Your task to perform on an android device: turn pop-ups on in chrome Image 0: 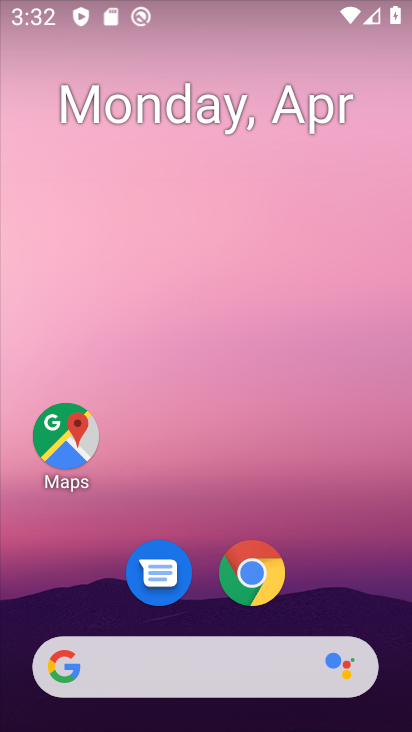
Step 0: drag from (347, 589) to (361, 99)
Your task to perform on an android device: turn pop-ups on in chrome Image 1: 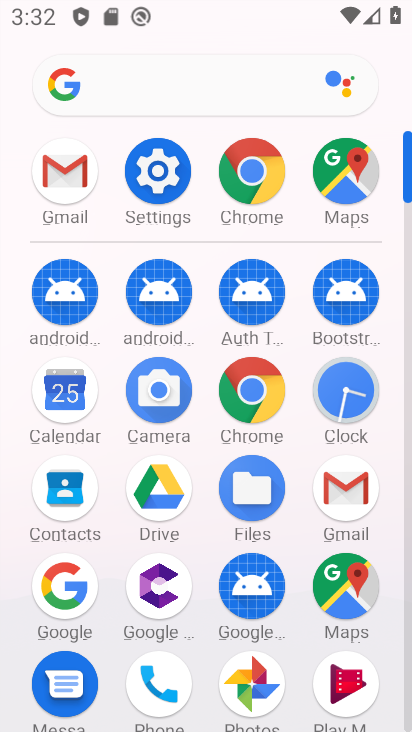
Step 1: click (266, 393)
Your task to perform on an android device: turn pop-ups on in chrome Image 2: 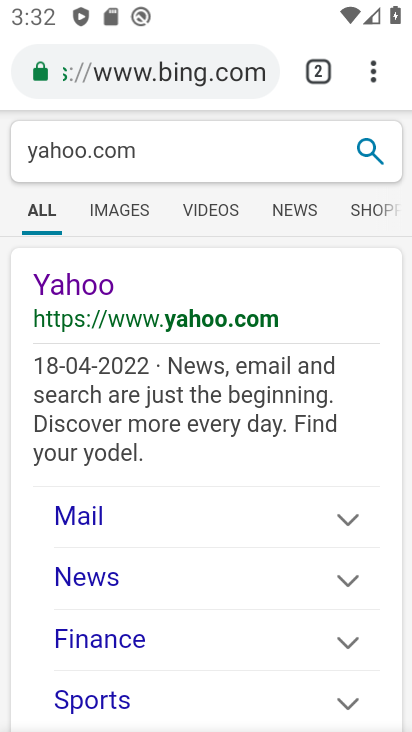
Step 2: click (373, 76)
Your task to perform on an android device: turn pop-ups on in chrome Image 3: 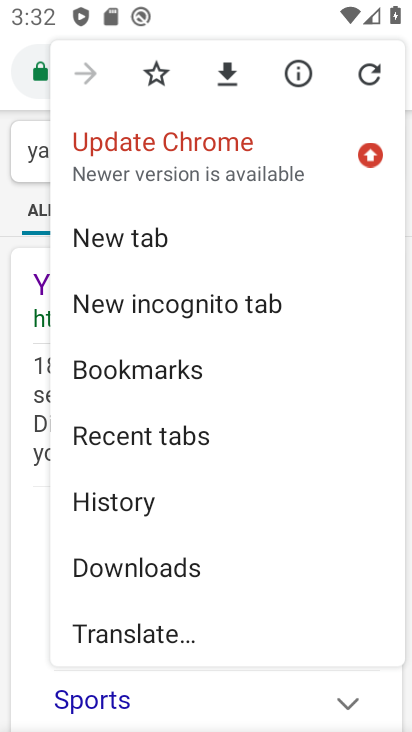
Step 3: drag from (341, 541) to (345, 412)
Your task to perform on an android device: turn pop-ups on in chrome Image 4: 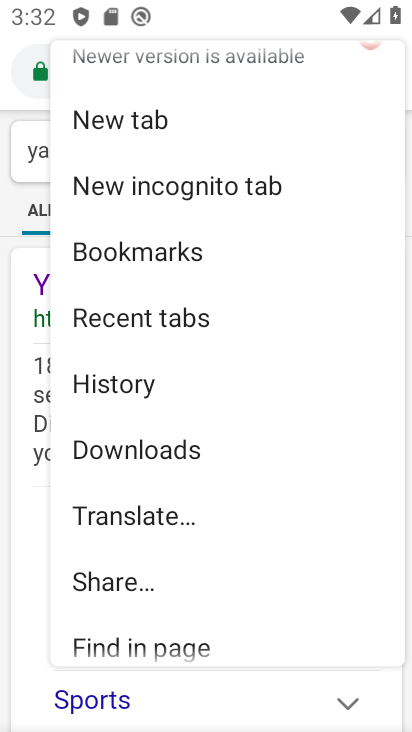
Step 4: drag from (312, 542) to (304, 428)
Your task to perform on an android device: turn pop-ups on in chrome Image 5: 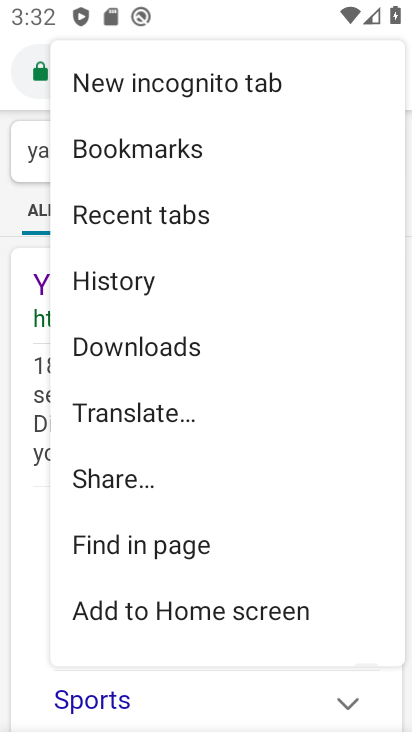
Step 5: drag from (343, 546) to (336, 355)
Your task to perform on an android device: turn pop-ups on in chrome Image 6: 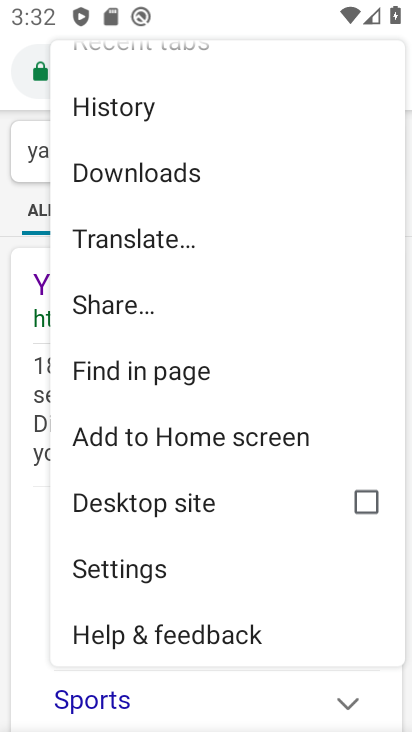
Step 6: click (150, 573)
Your task to perform on an android device: turn pop-ups on in chrome Image 7: 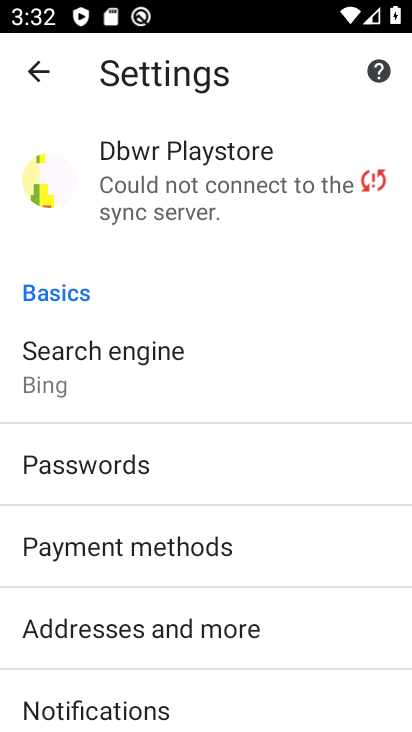
Step 7: drag from (343, 579) to (344, 475)
Your task to perform on an android device: turn pop-ups on in chrome Image 8: 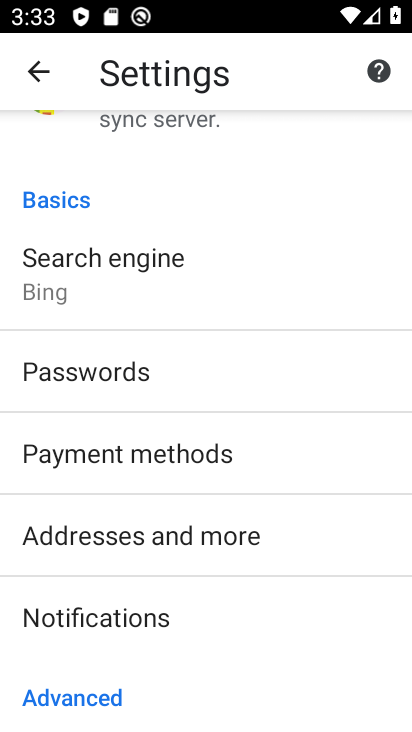
Step 8: drag from (318, 637) to (305, 487)
Your task to perform on an android device: turn pop-ups on in chrome Image 9: 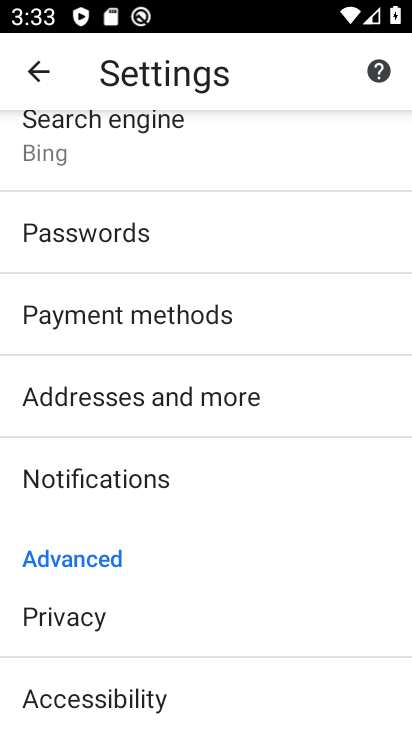
Step 9: drag from (311, 651) to (309, 488)
Your task to perform on an android device: turn pop-ups on in chrome Image 10: 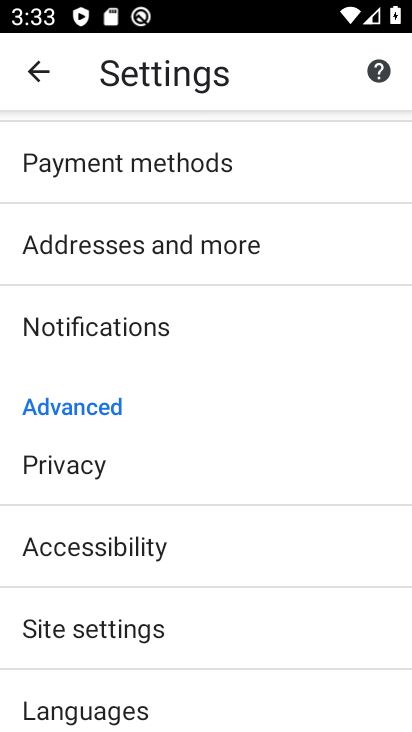
Step 10: drag from (313, 642) to (320, 494)
Your task to perform on an android device: turn pop-ups on in chrome Image 11: 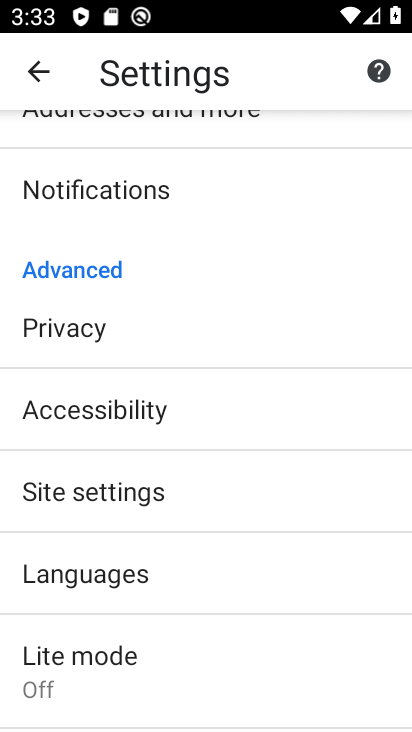
Step 11: drag from (310, 643) to (331, 463)
Your task to perform on an android device: turn pop-ups on in chrome Image 12: 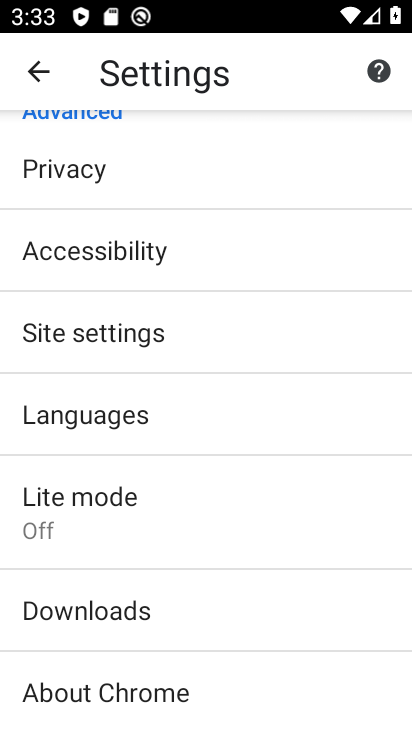
Step 12: drag from (286, 628) to (298, 472)
Your task to perform on an android device: turn pop-ups on in chrome Image 13: 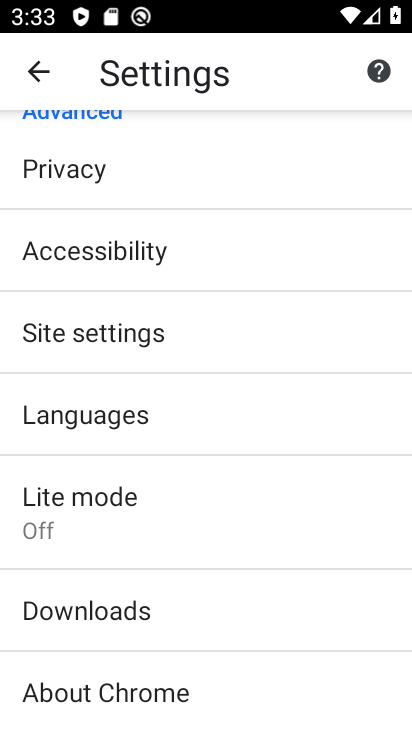
Step 13: drag from (305, 384) to (270, 538)
Your task to perform on an android device: turn pop-ups on in chrome Image 14: 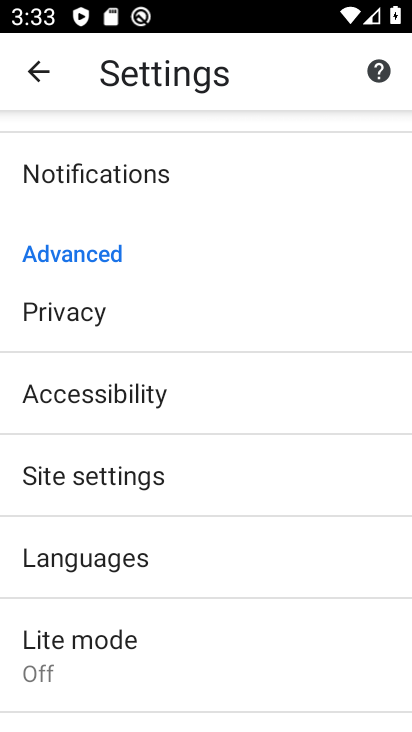
Step 14: drag from (286, 426) to (273, 548)
Your task to perform on an android device: turn pop-ups on in chrome Image 15: 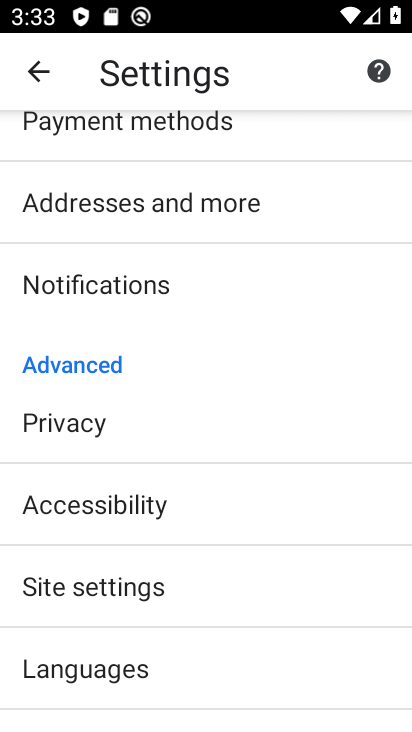
Step 15: drag from (282, 427) to (283, 545)
Your task to perform on an android device: turn pop-ups on in chrome Image 16: 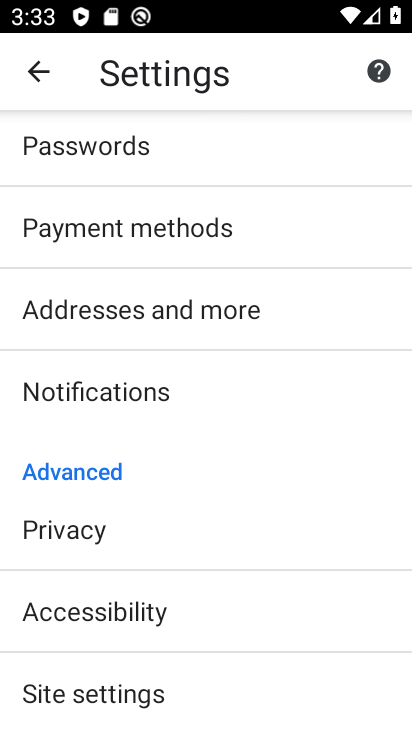
Step 16: click (242, 674)
Your task to perform on an android device: turn pop-ups on in chrome Image 17: 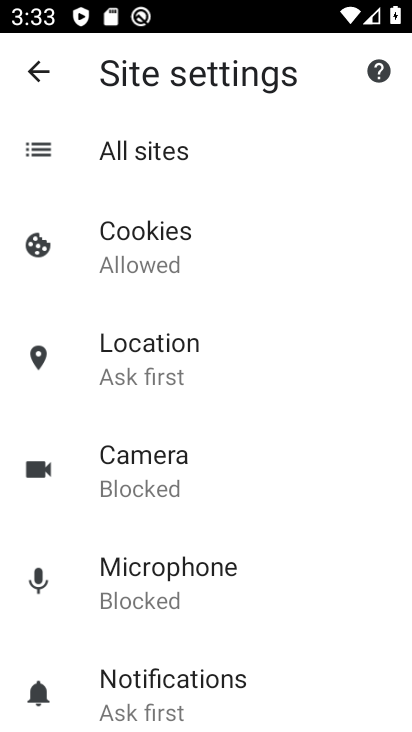
Step 17: drag from (353, 646) to (348, 484)
Your task to perform on an android device: turn pop-ups on in chrome Image 18: 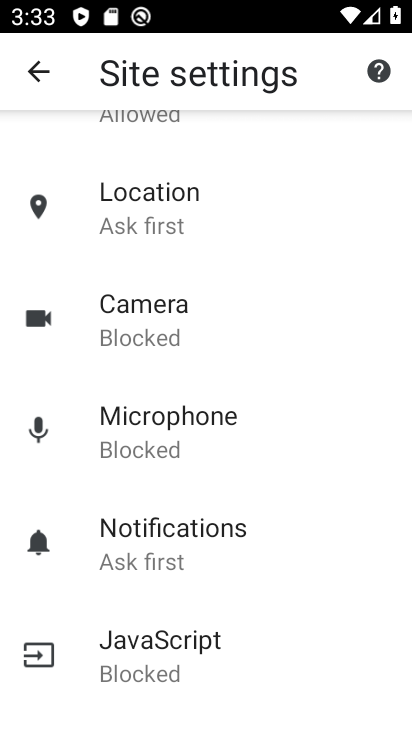
Step 18: drag from (343, 612) to (348, 467)
Your task to perform on an android device: turn pop-ups on in chrome Image 19: 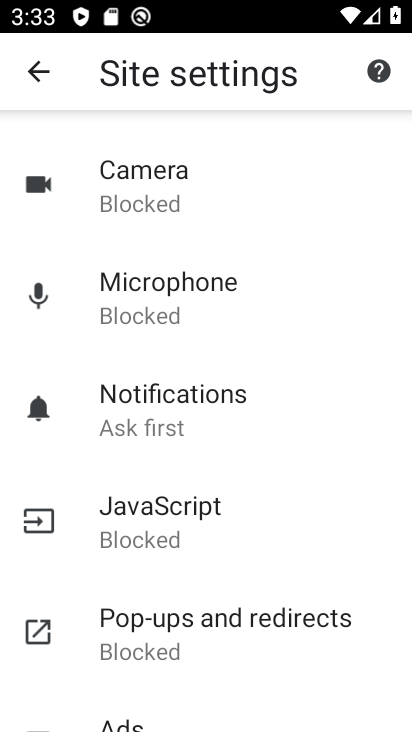
Step 19: drag from (362, 666) to (352, 454)
Your task to perform on an android device: turn pop-ups on in chrome Image 20: 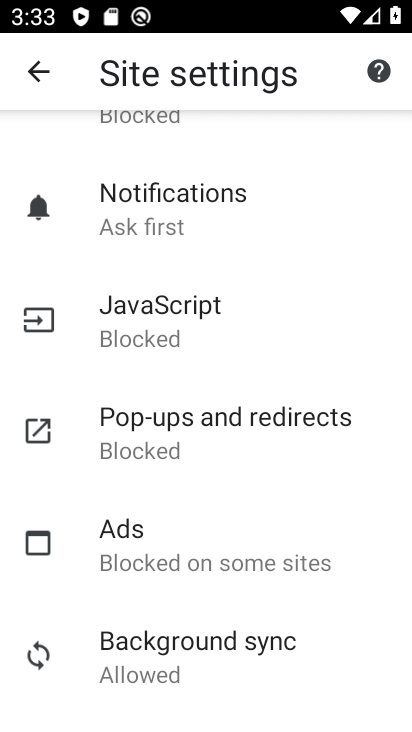
Step 20: drag from (341, 513) to (340, 361)
Your task to perform on an android device: turn pop-ups on in chrome Image 21: 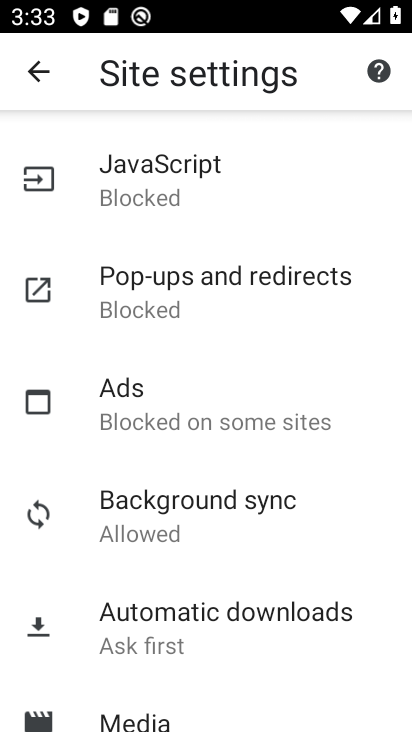
Step 21: click (255, 291)
Your task to perform on an android device: turn pop-ups on in chrome Image 22: 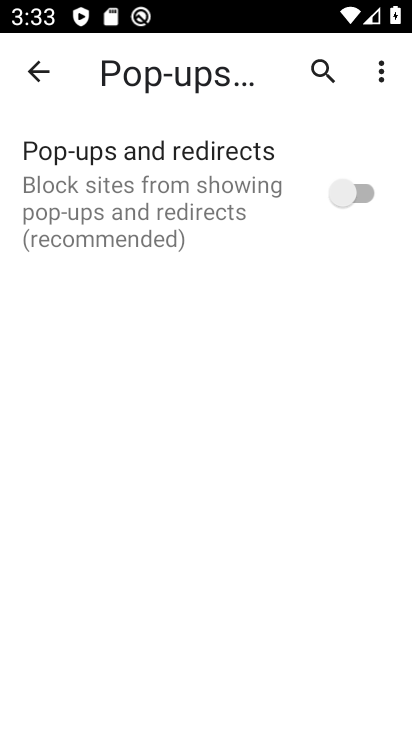
Step 22: click (330, 201)
Your task to perform on an android device: turn pop-ups on in chrome Image 23: 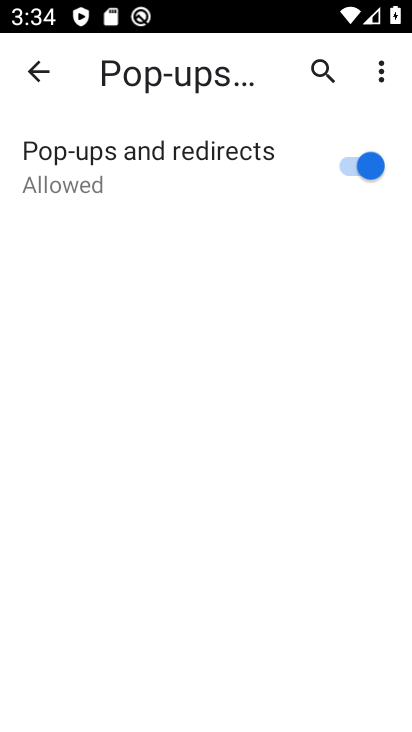
Step 23: task complete